Your task to perform on an android device: Install the Uber app Image 0: 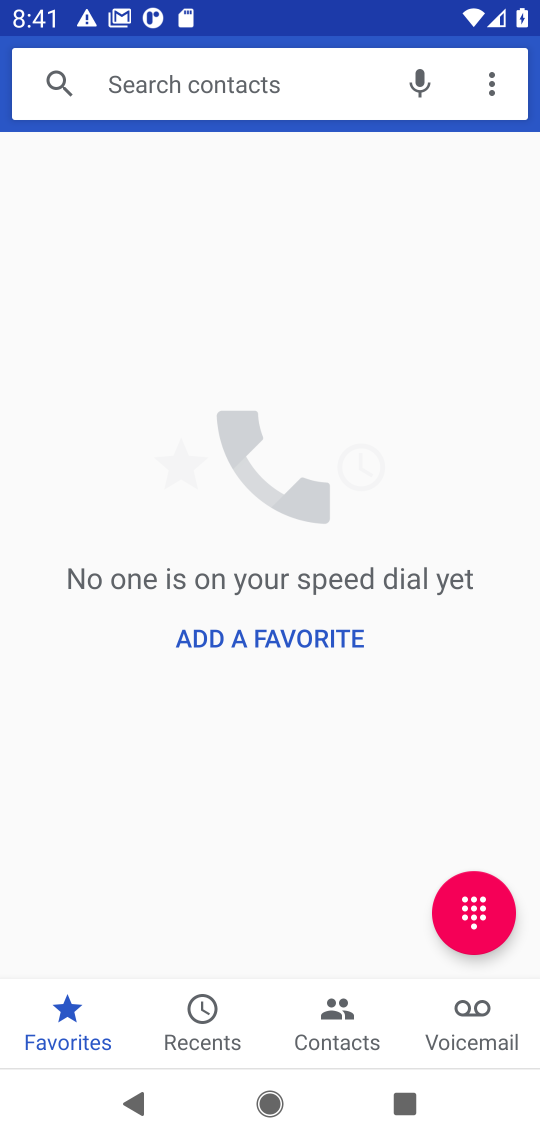
Step 0: press home button
Your task to perform on an android device: Install the Uber app Image 1: 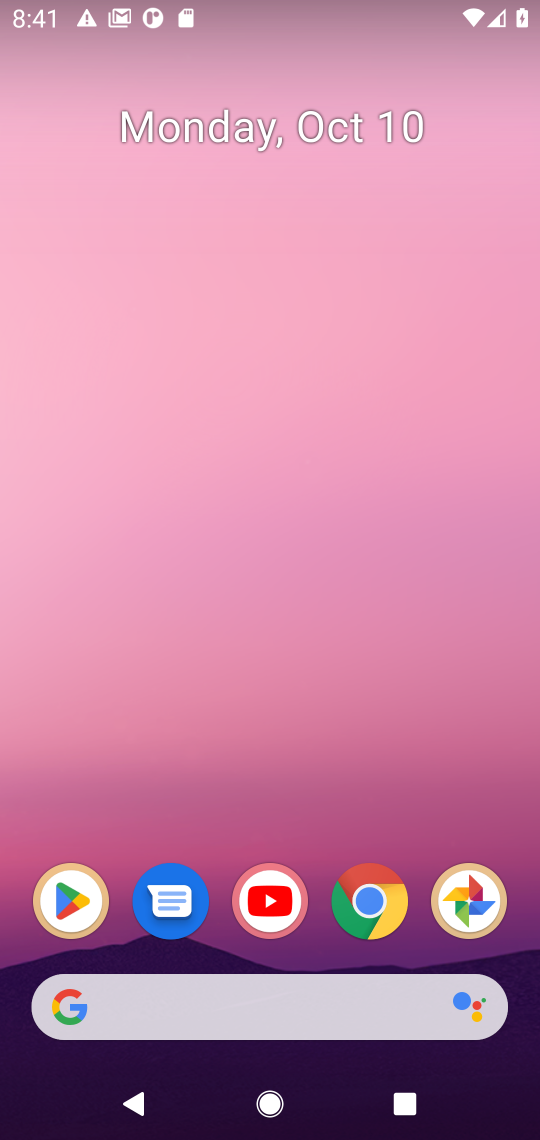
Step 1: drag from (451, 611) to (450, 65)
Your task to perform on an android device: Install the Uber app Image 2: 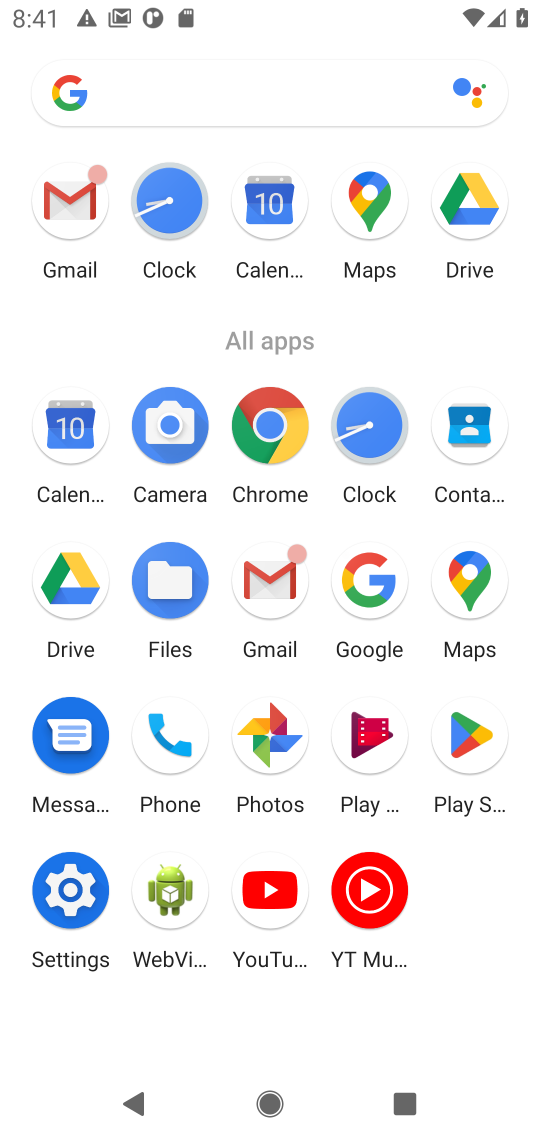
Step 2: click (461, 736)
Your task to perform on an android device: Install the Uber app Image 3: 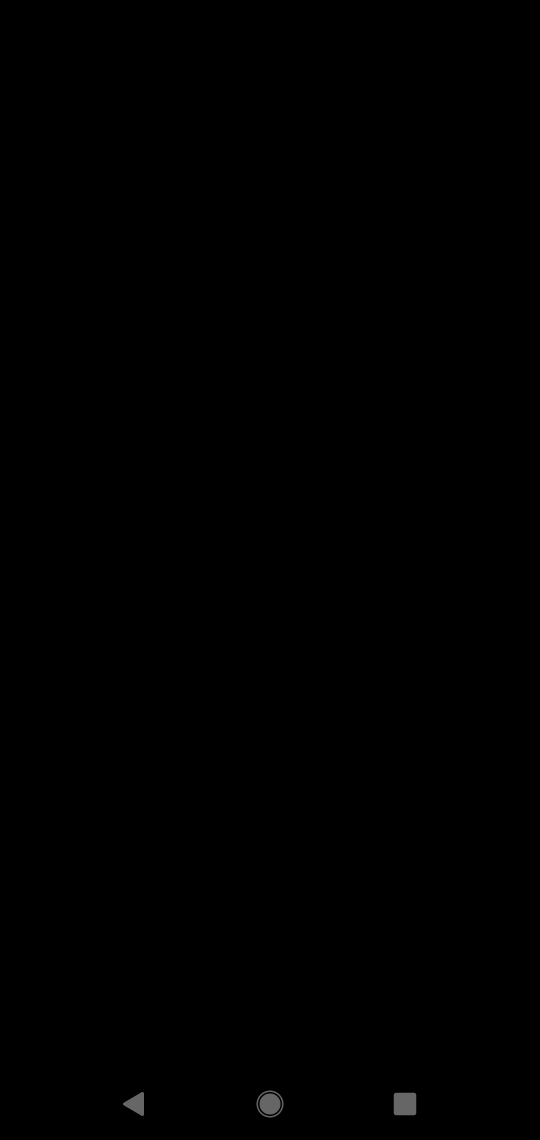
Step 3: click (459, 742)
Your task to perform on an android device: Install the Uber app Image 4: 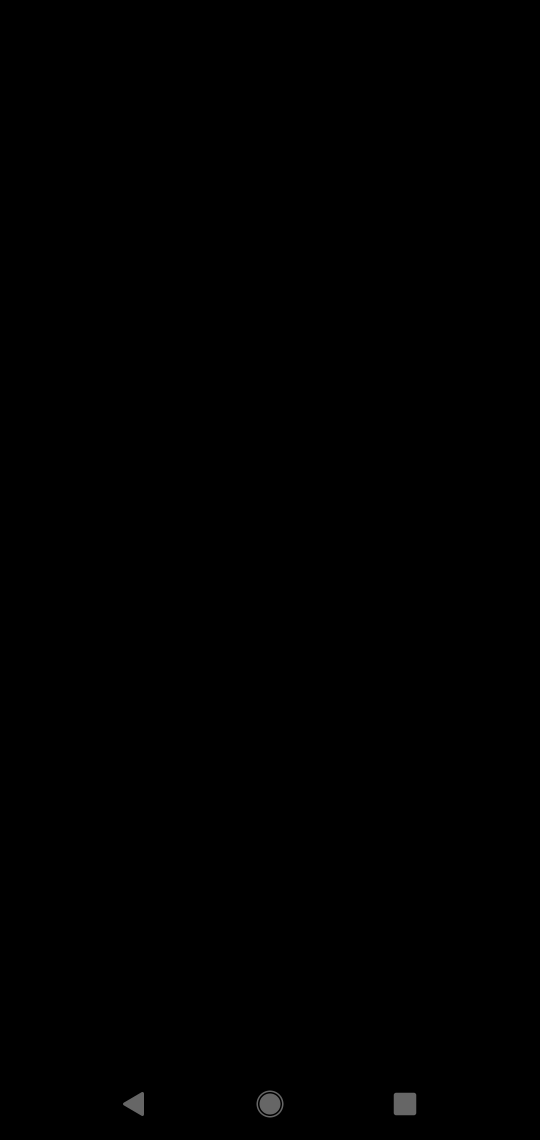
Step 4: task complete